Your task to perform on an android device: turn on priority inbox in the gmail app Image 0: 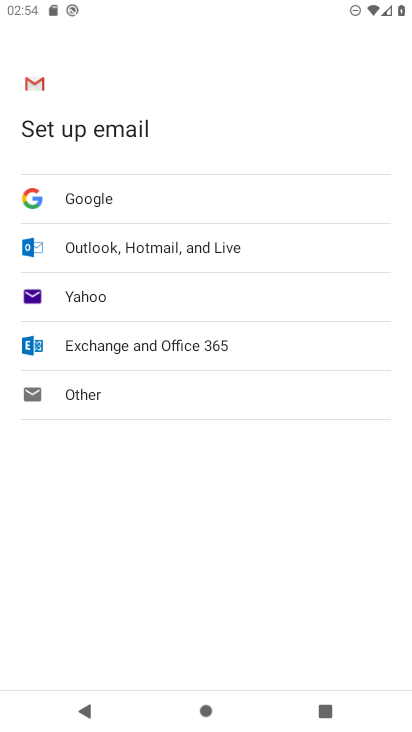
Step 0: press home button
Your task to perform on an android device: turn on priority inbox in the gmail app Image 1: 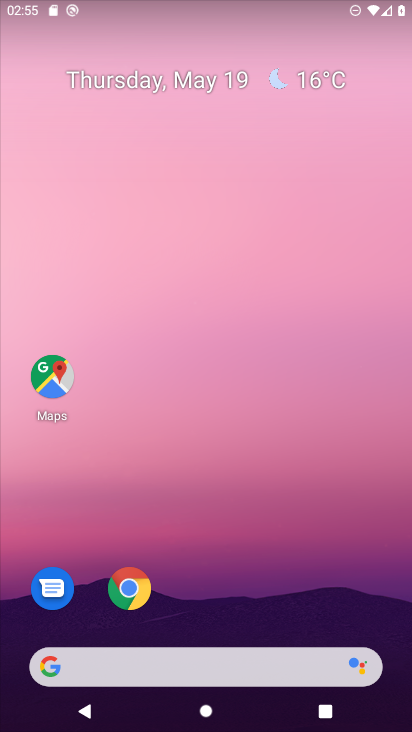
Step 1: drag from (212, 606) to (211, 9)
Your task to perform on an android device: turn on priority inbox in the gmail app Image 2: 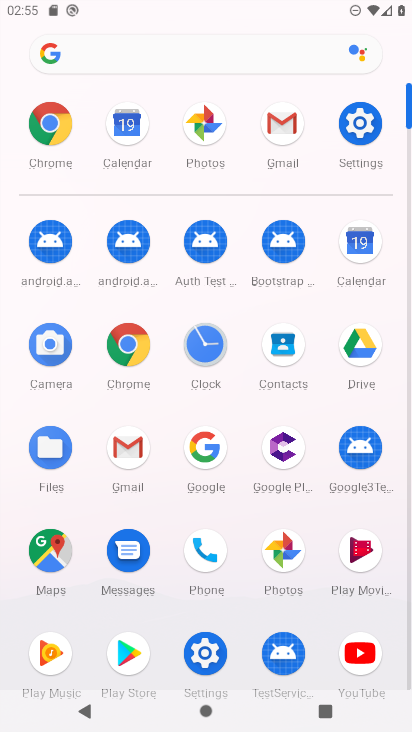
Step 2: click (280, 137)
Your task to perform on an android device: turn on priority inbox in the gmail app Image 3: 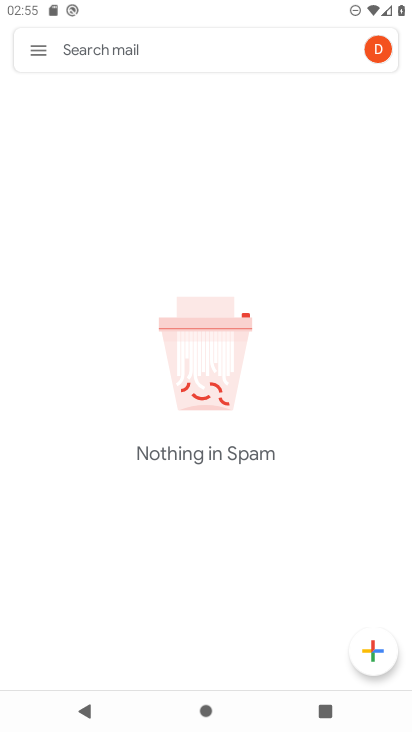
Step 3: click (45, 55)
Your task to perform on an android device: turn on priority inbox in the gmail app Image 4: 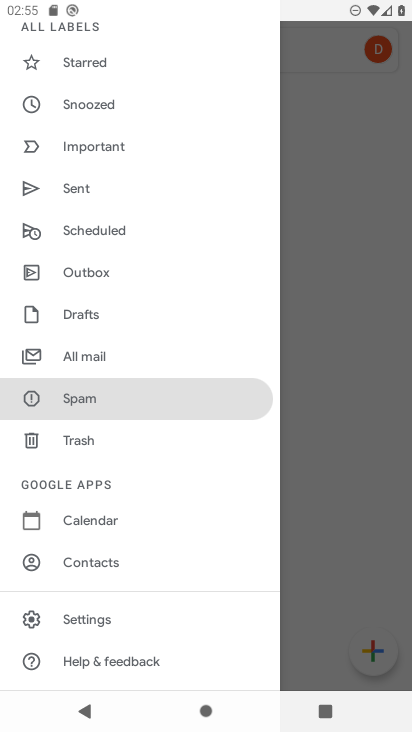
Step 4: click (93, 613)
Your task to perform on an android device: turn on priority inbox in the gmail app Image 5: 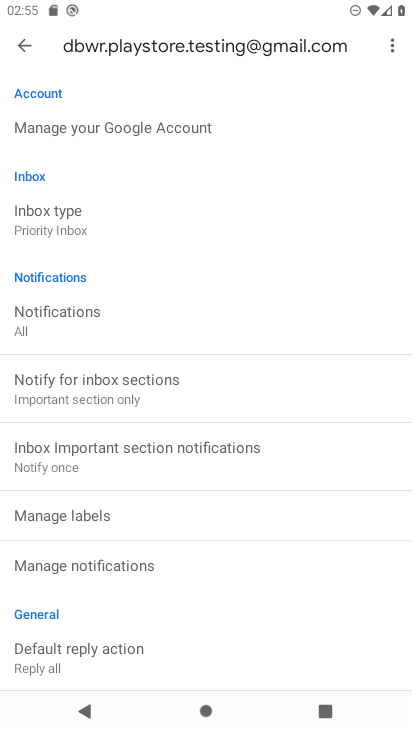
Step 5: drag from (284, 497) to (299, 537)
Your task to perform on an android device: turn on priority inbox in the gmail app Image 6: 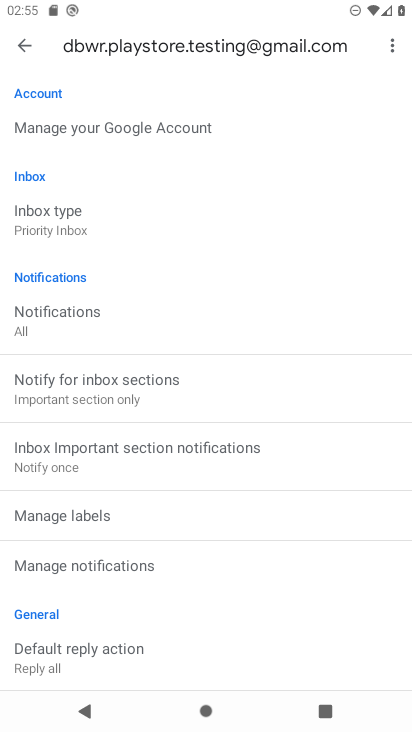
Step 6: click (40, 229)
Your task to perform on an android device: turn on priority inbox in the gmail app Image 7: 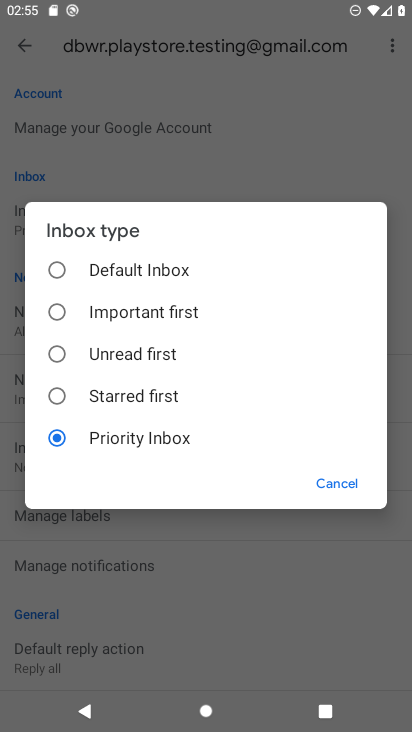
Step 7: task complete